Your task to perform on an android device: Go to display settings Image 0: 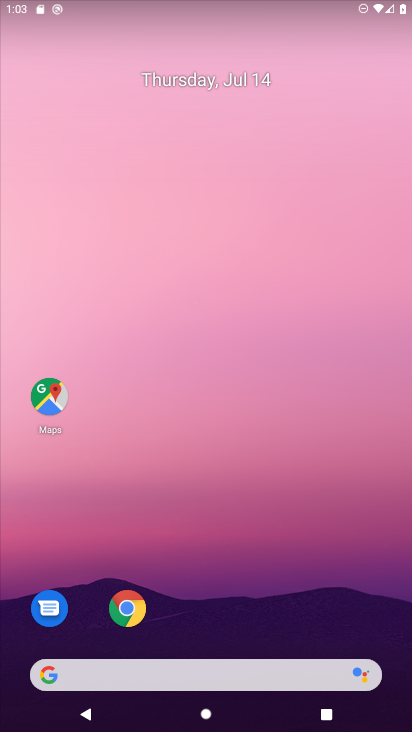
Step 0: drag from (259, 716) to (262, 574)
Your task to perform on an android device: Go to display settings Image 1: 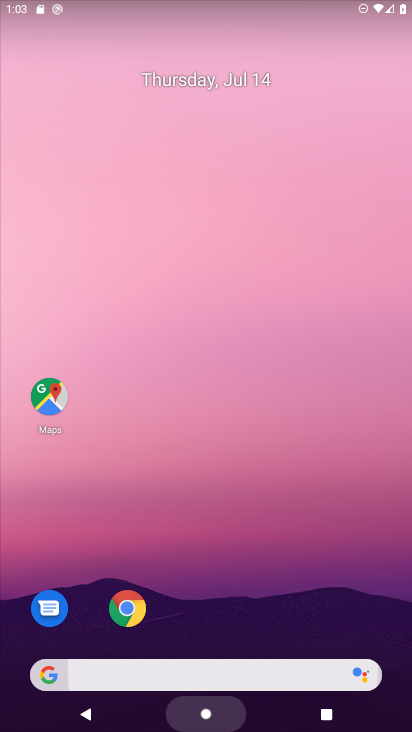
Step 1: click (262, 215)
Your task to perform on an android device: Go to display settings Image 2: 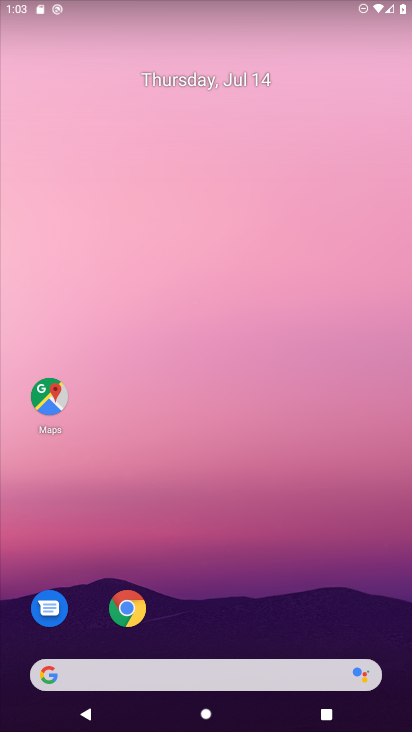
Step 2: drag from (251, 664) to (244, 108)
Your task to perform on an android device: Go to display settings Image 3: 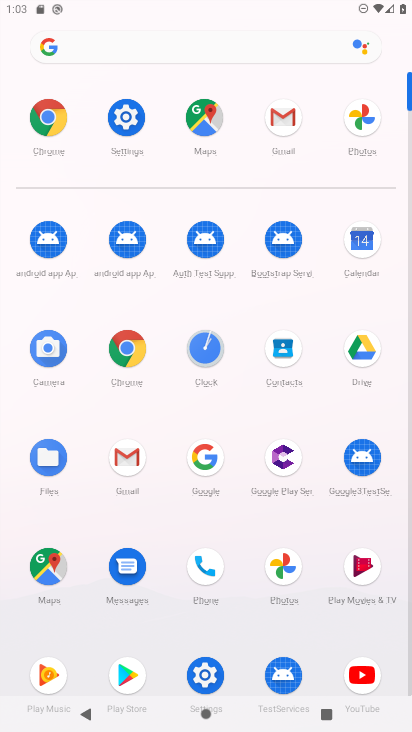
Step 3: click (128, 120)
Your task to perform on an android device: Go to display settings Image 4: 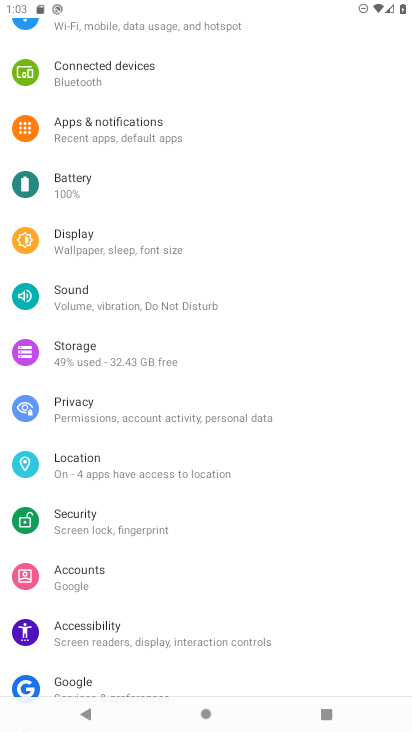
Step 4: click (88, 244)
Your task to perform on an android device: Go to display settings Image 5: 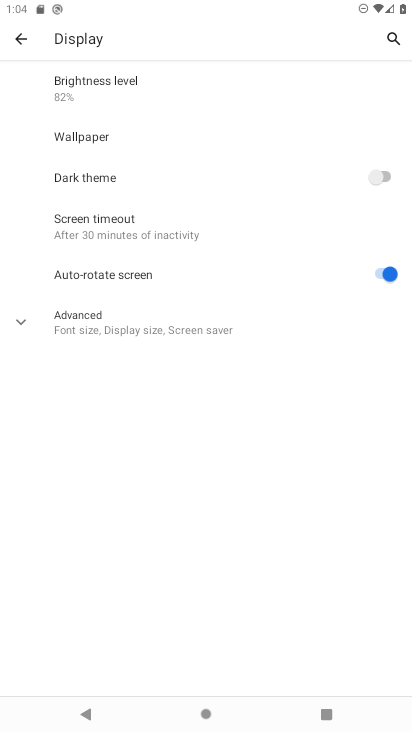
Step 5: task complete